Your task to perform on an android device: Open Youtube and go to "Your channel" Image 0: 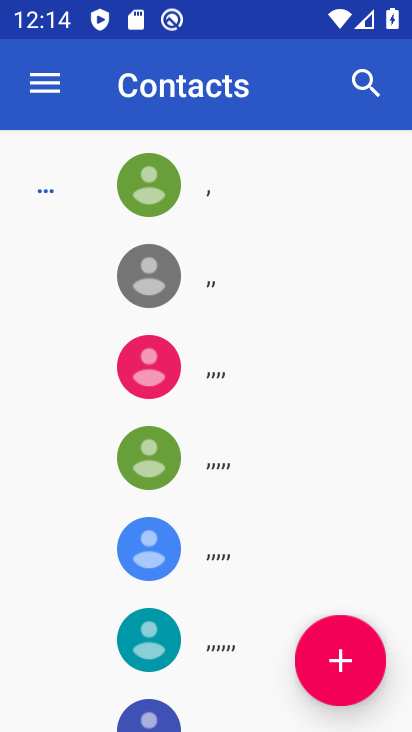
Step 0: press home button
Your task to perform on an android device: Open Youtube and go to "Your channel" Image 1: 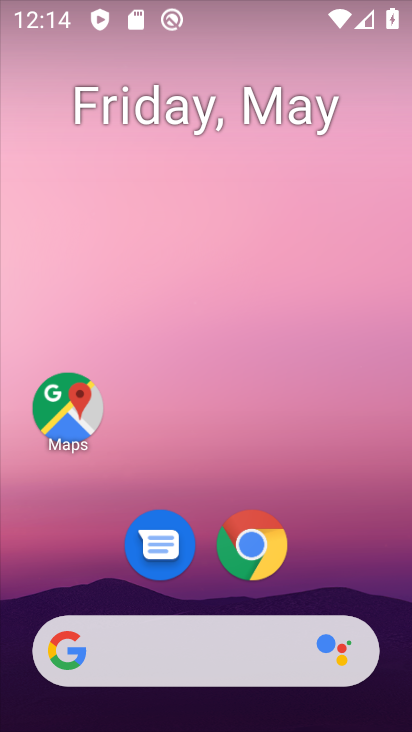
Step 1: drag from (352, 552) to (328, 158)
Your task to perform on an android device: Open Youtube and go to "Your channel" Image 2: 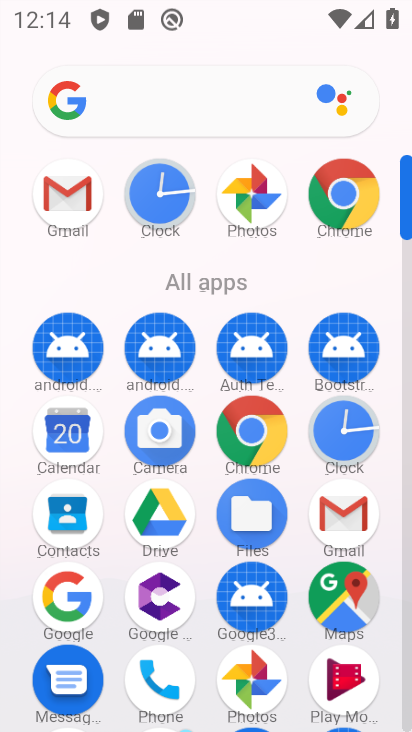
Step 2: drag from (293, 632) to (332, 234)
Your task to perform on an android device: Open Youtube and go to "Your channel" Image 3: 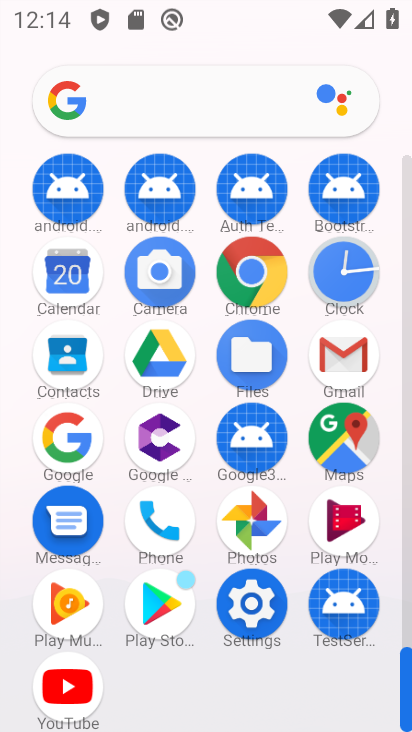
Step 3: click (78, 686)
Your task to perform on an android device: Open Youtube and go to "Your channel" Image 4: 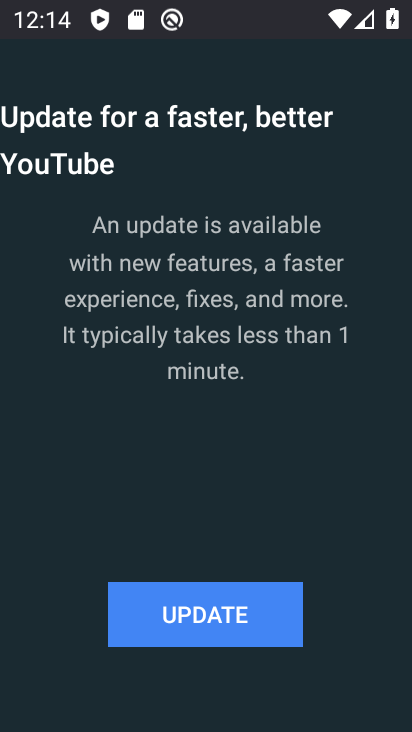
Step 4: click (223, 613)
Your task to perform on an android device: Open Youtube and go to "Your channel" Image 5: 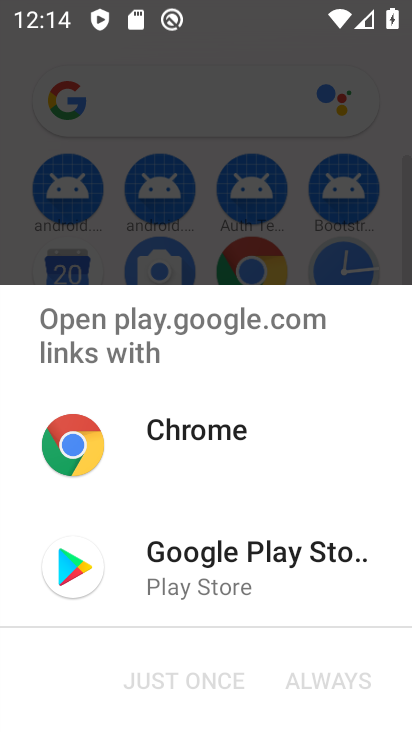
Step 5: click (239, 571)
Your task to perform on an android device: Open Youtube and go to "Your channel" Image 6: 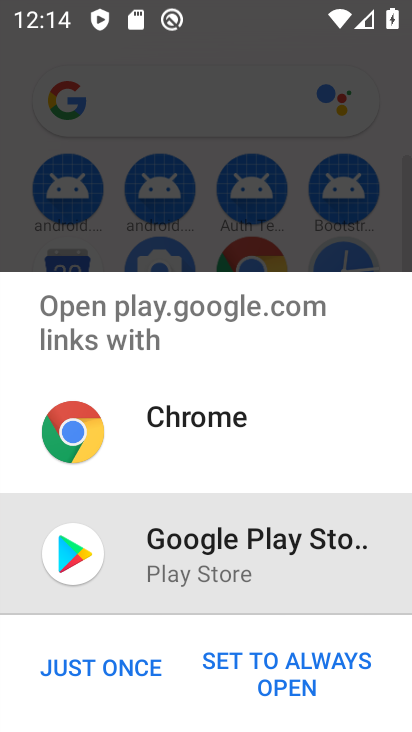
Step 6: click (106, 662)
Your task to perform on an android device: Open Youtube and go to "Your channel" Image 7: 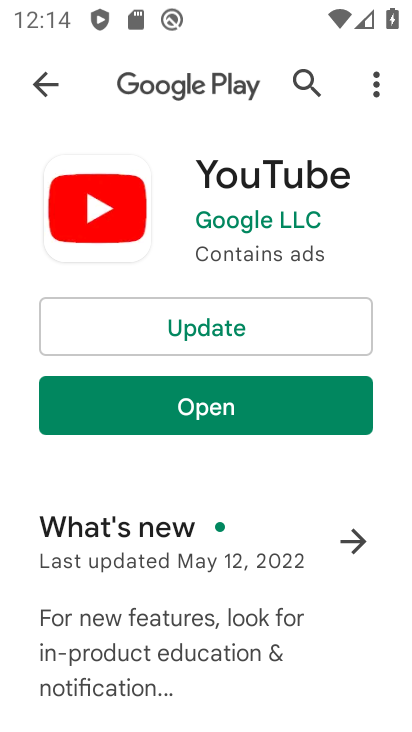
Step 7: click (281, 315)
Your task to perform on an android device: Open Youtube and go to "Your channel" Image 8: 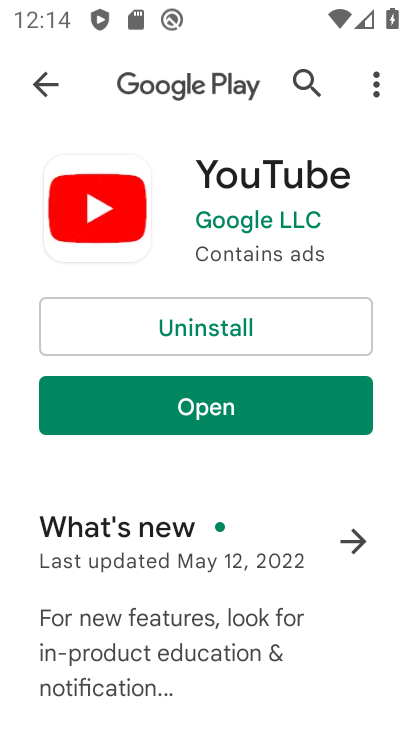
Step 8: click (265, 413)
Your task to perform on an android device: Open Youtube and go to "Your channel" Image 9: 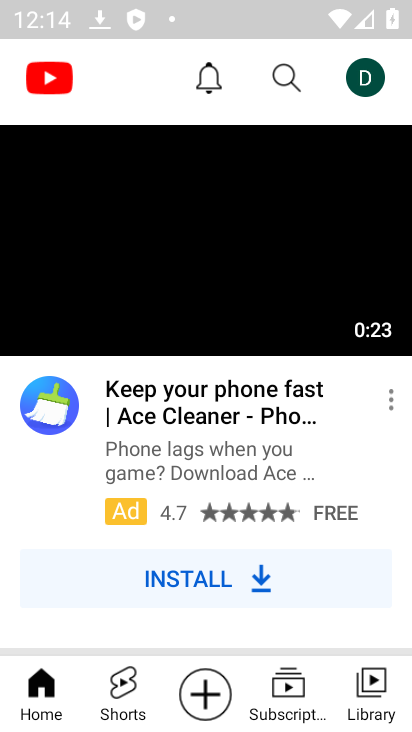
Step 9: click (351, 73)
Your task to perform on an android device: Open Youtube and go to "Your channel" Image 10: 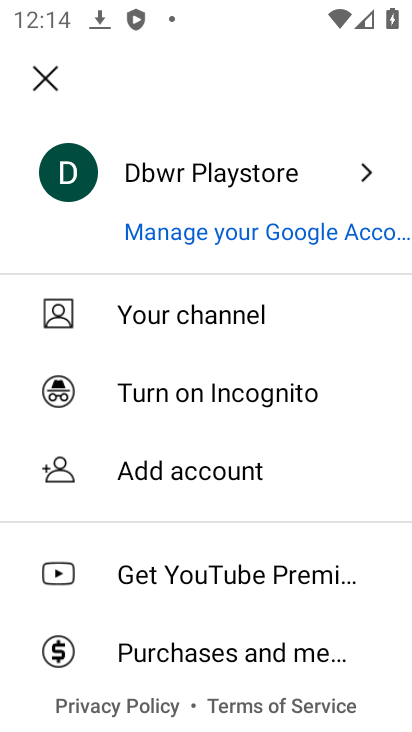
Step 10: click (319, 331)
Your task to perform on an android device: Open Youtube and go to "Your channel" Image 11: 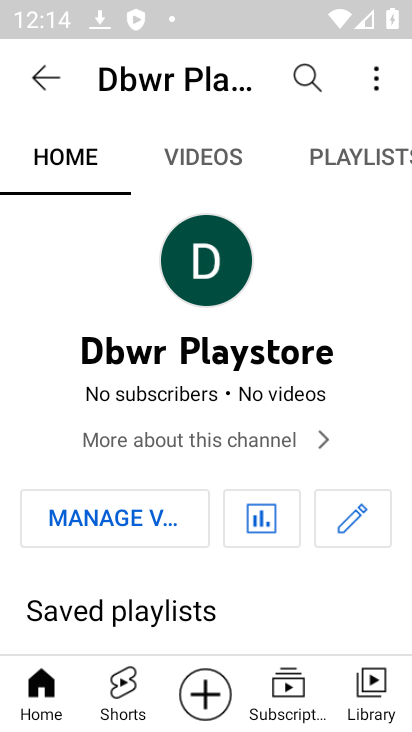
Step 11: task complete